Your task to perform on an android device: Show me the alarms in the clock app Image 0: 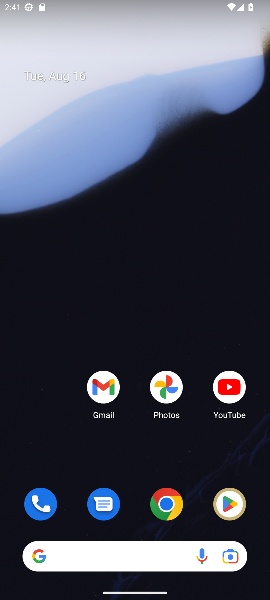
Step 0: drag from (197, 462) to (142, 0)
Your task to perform on an android device: Show me the alarms in the clock app Image 1: 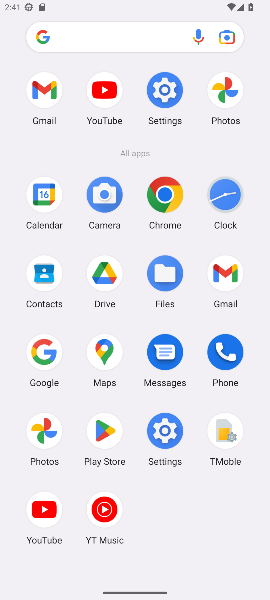
Step 1: click (216, 184)
Your task to perform on an android device: Show me the alarms in the clock app Image 2: 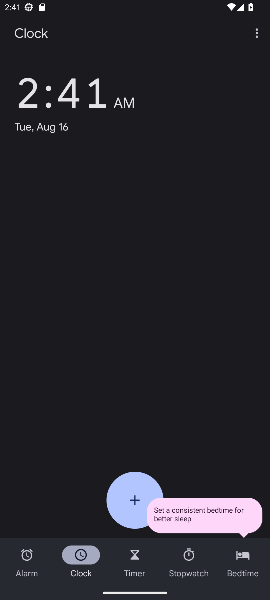
Step 2: click (25, 558)
Your task to perform on an android device: Show me the alarms in the clock app Image 3: 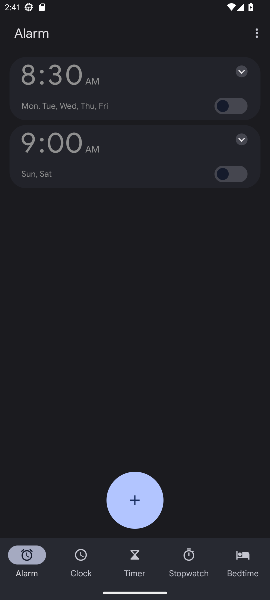
Step 3: task complete